Your task to perform on an android device: Show me popular videos on Youtube Image 0: 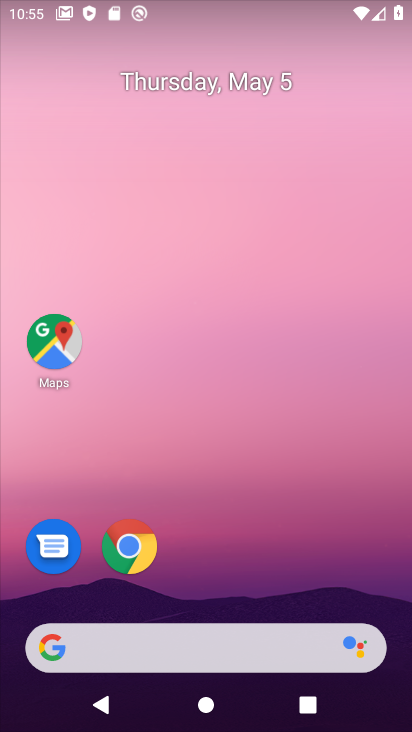
Step 0: drag from (102, 546) to (325, 165)
Your task to perform on an android device: Show me popular videos on Youtube Image 1: 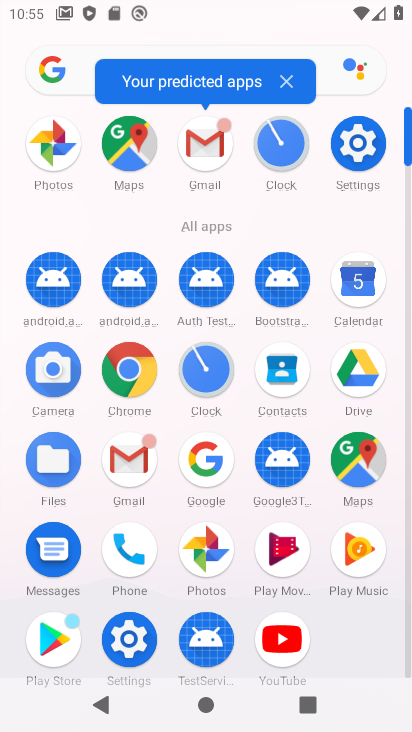
Step 1: click (285, 643)
Your task to perform on an android device: Show me popular videos on Youtube Image 2: 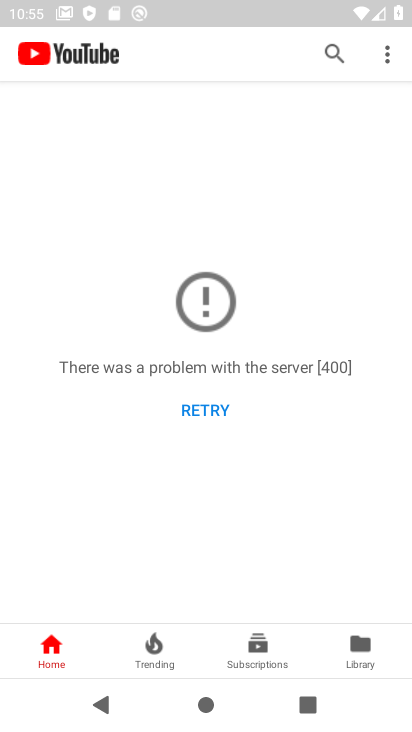
Step 2: click (155, 644)
Your task to perform on an android device: Show me popular videos on Youtube Image 3: 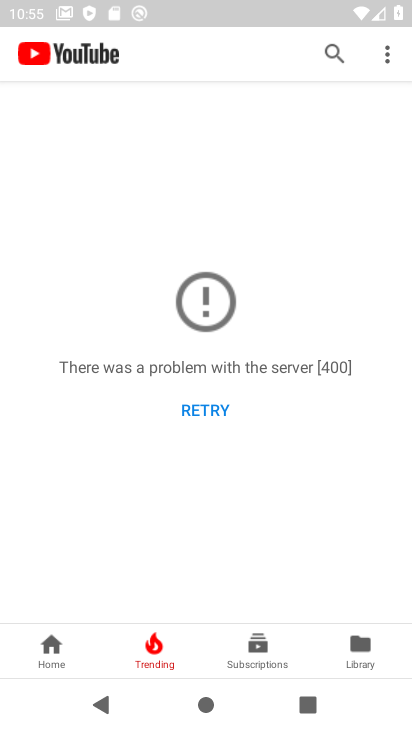
Step 3: task complete